Your task to perform on an android device: Open Reddit.com Image 0: 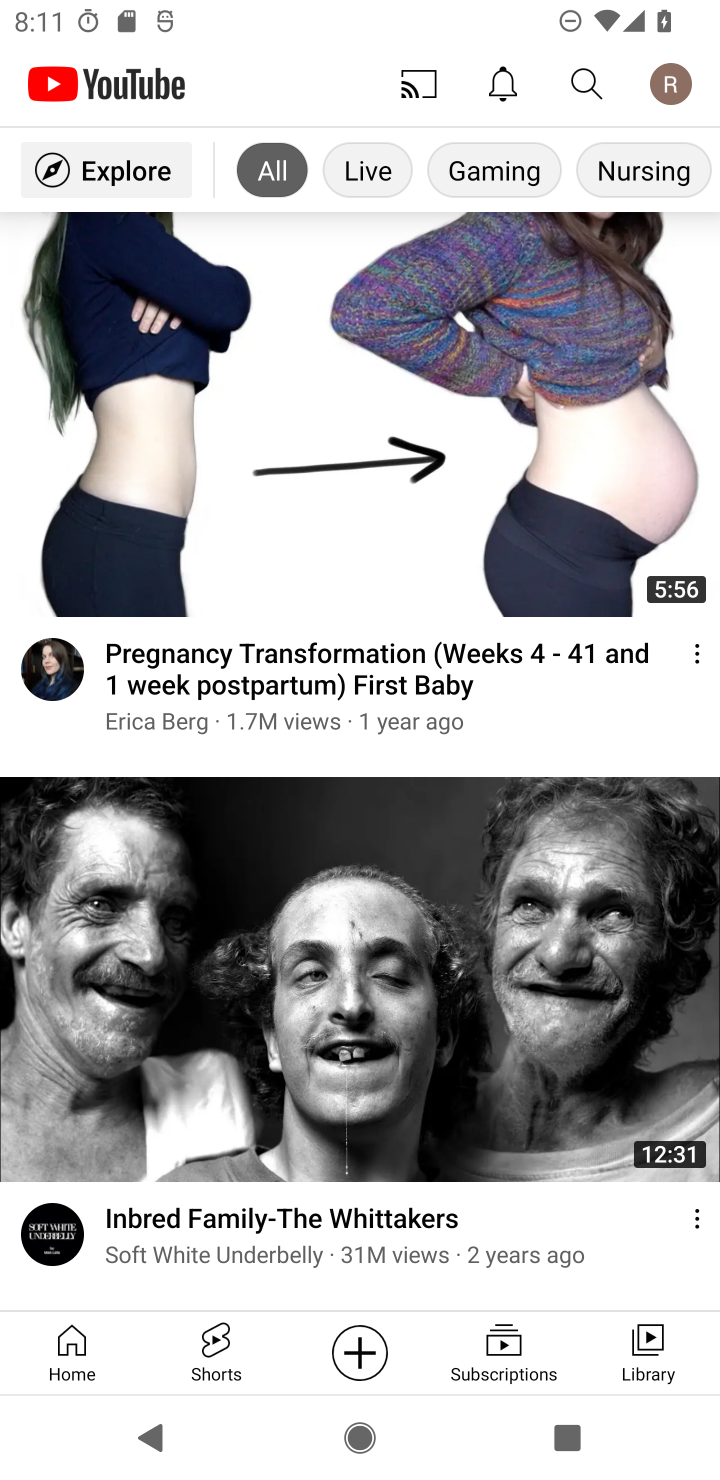
Step 0: press home button
Your task to perform on an android device: Open Reddit.com Image 1: 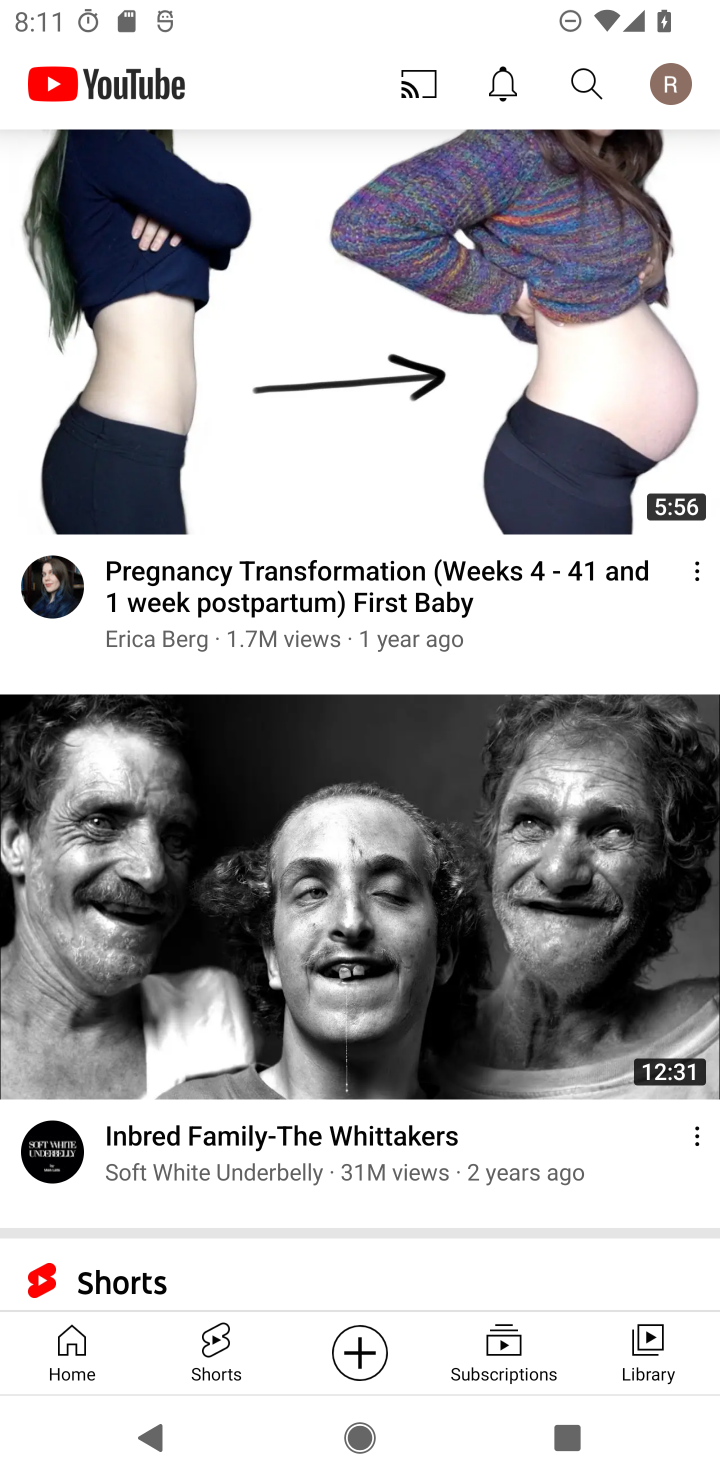
Step 1: press home button
Your task to perform on an android device: Open Reddit.com Image 2: 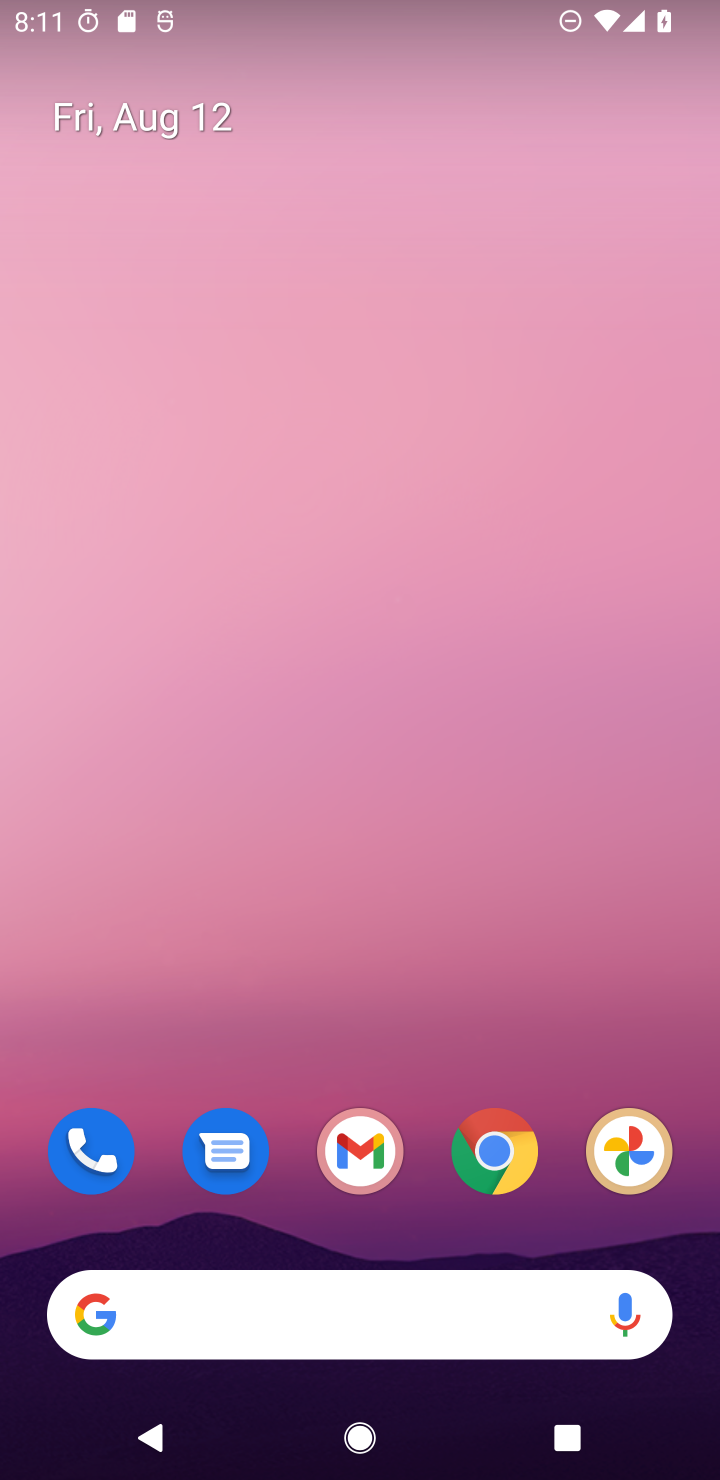
Step 2: drag from (476, 851) to (351, 21)
Your task to perform on an android device: Open Reddit.com Image 3: 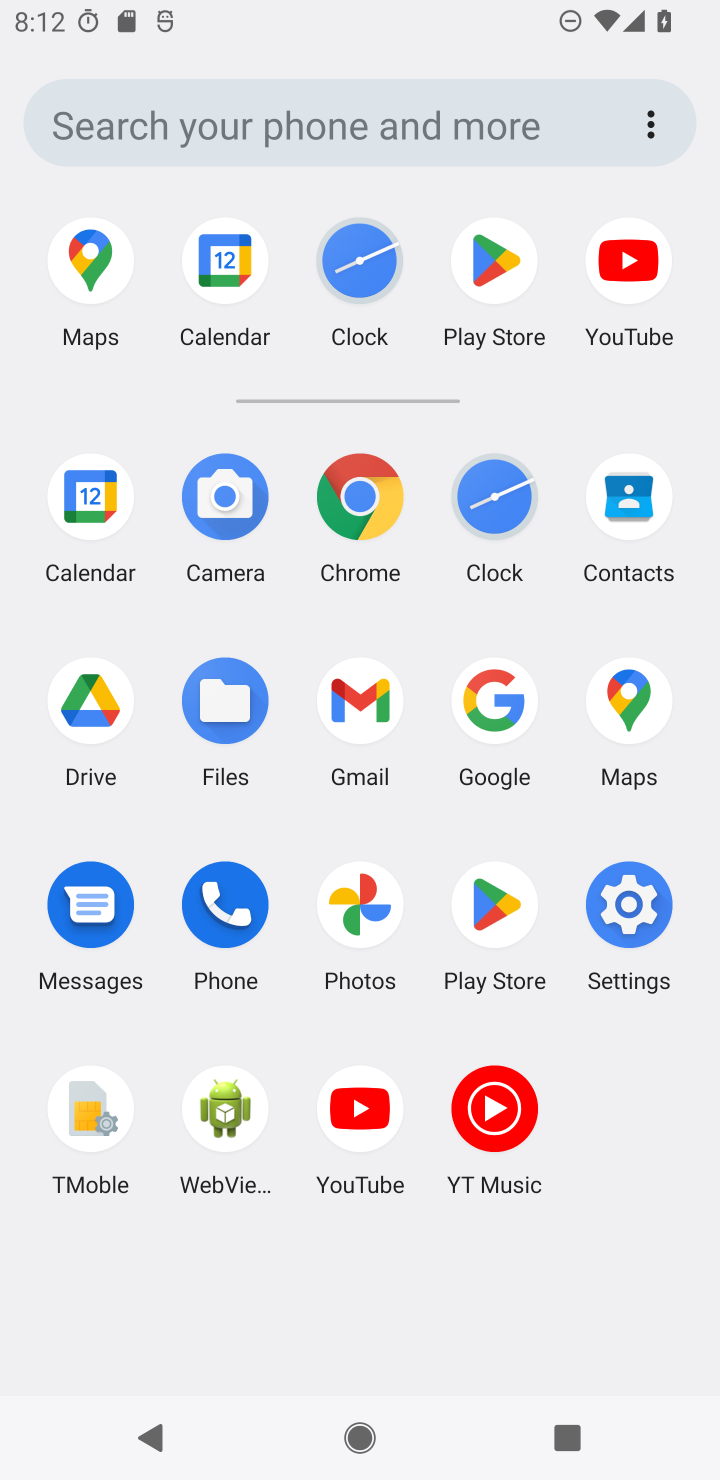
Step 3: click (355, 505)
Your task to perform on an android device: Open Reddit.com Image 4: 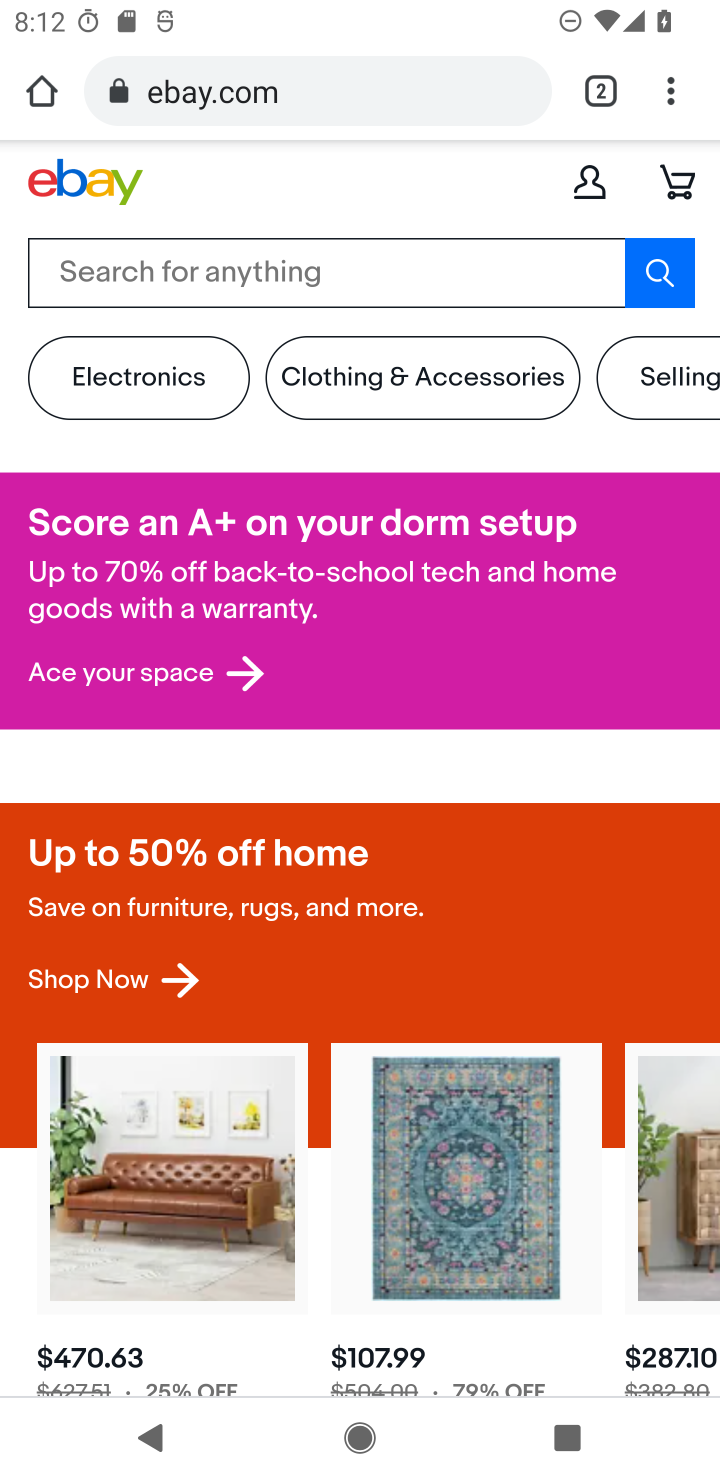
Step 4: drag from (685, 89) to (204, 90)
Your task to perform on an android device: Open Reddit.com Image 5: 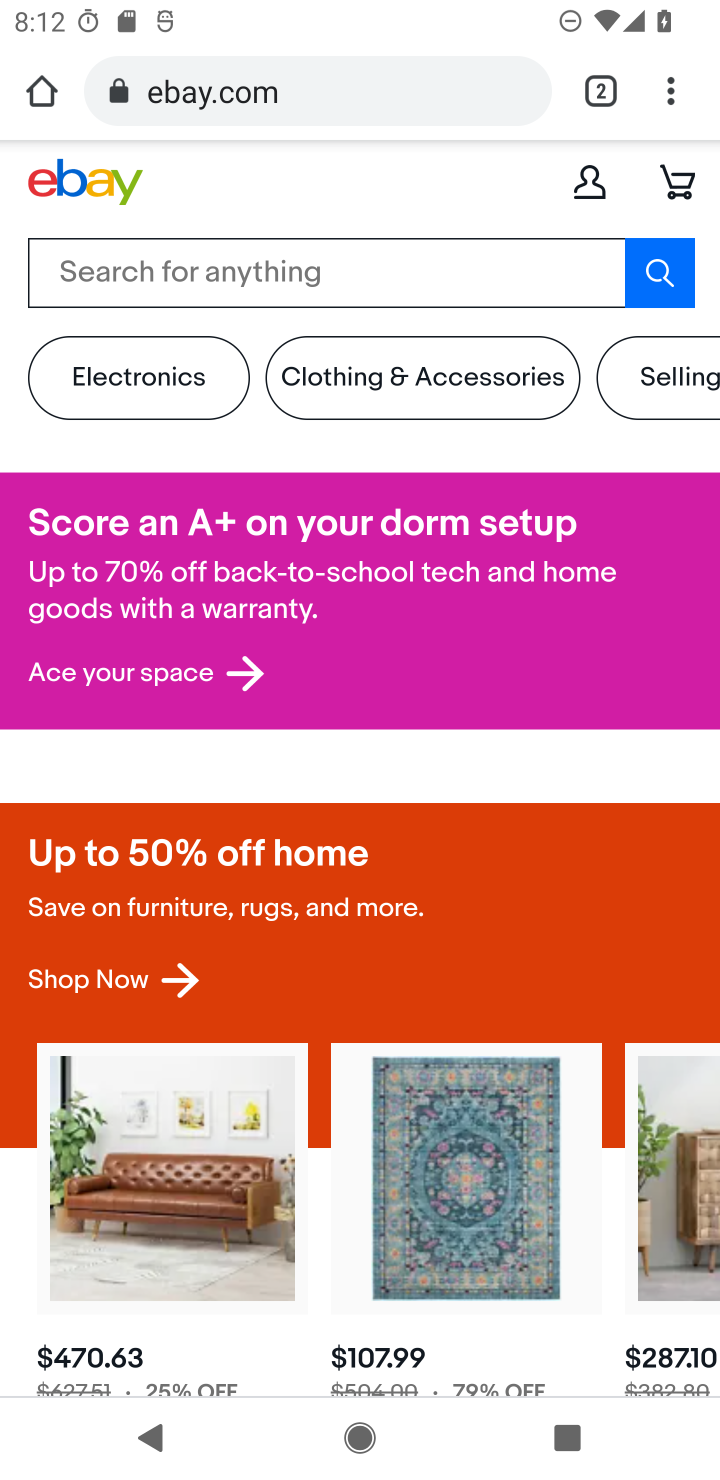
Step 5: click (427, 95)
Your task to perform on an android device: Open Reddit.com Image 6: 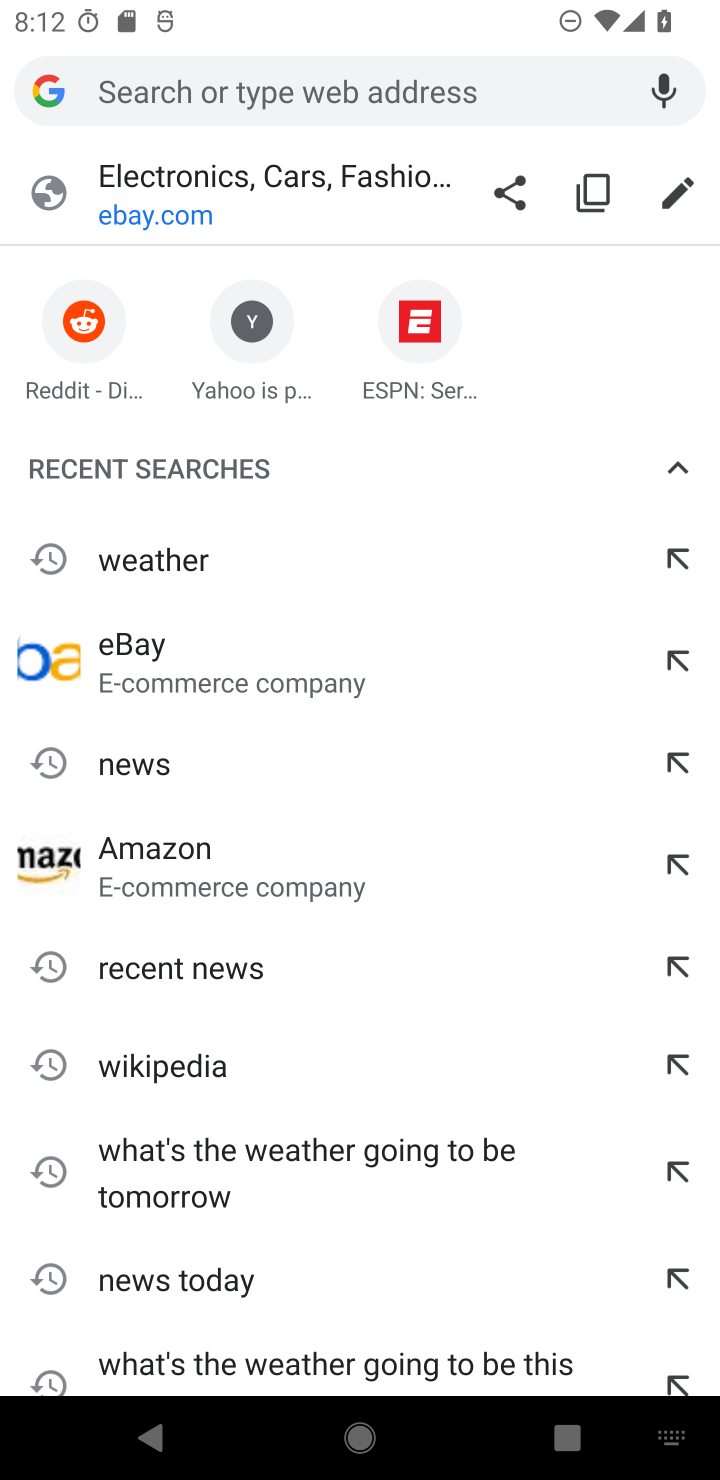
Step 6: type "reddit.com"
Your task to perform on an android device: Open Reddit.com Image 7: 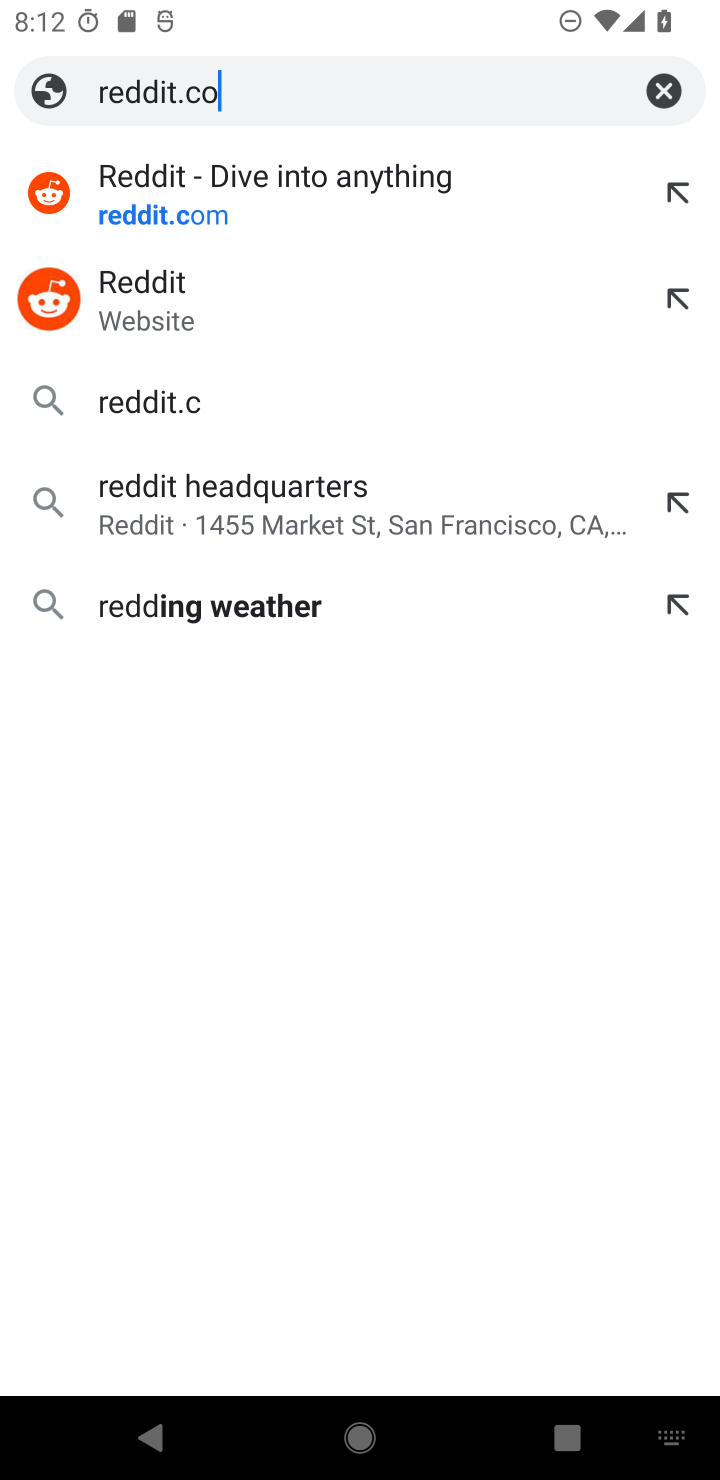
Step 7: type ""
Your task to perform on an android device: Open Reddit.com Image 8: 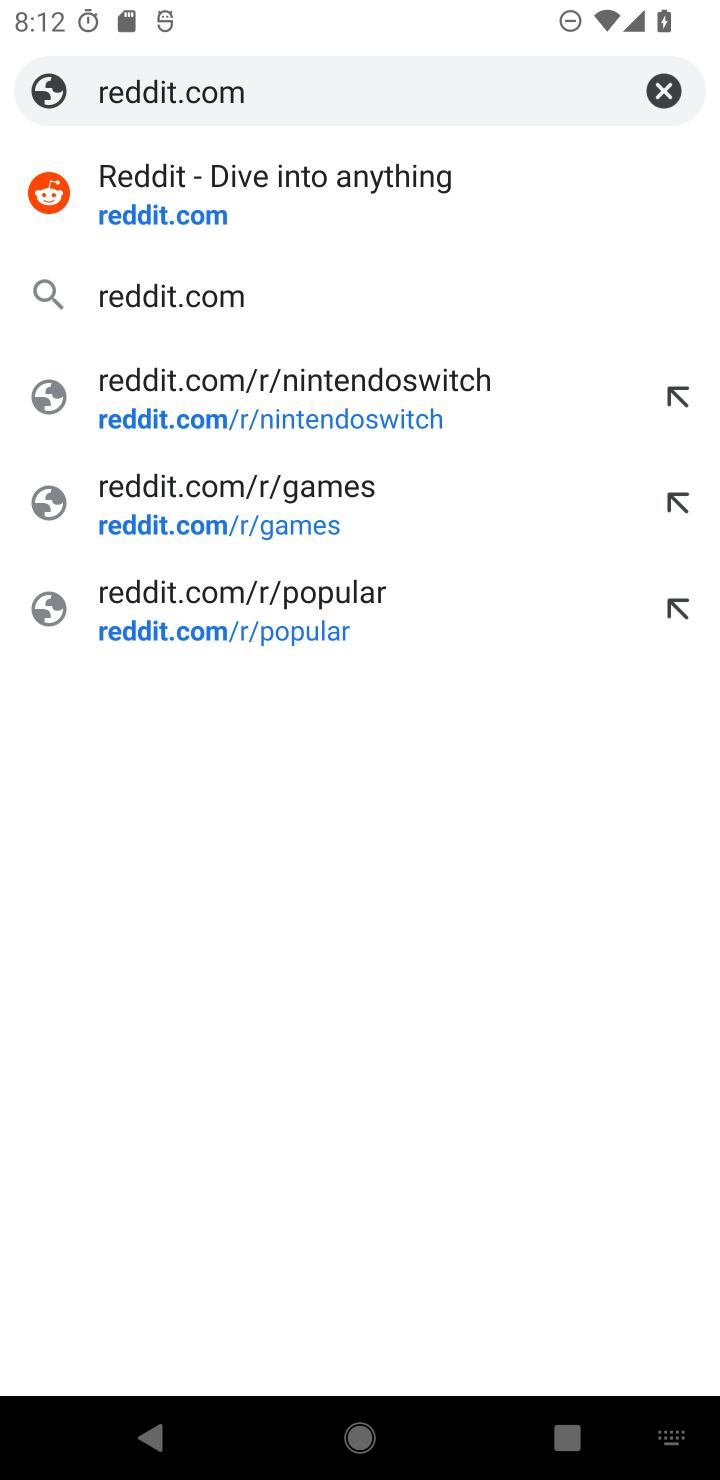
Step 8: click (129, 205)
Your task to perform on an android device: Open Reddit.com Image 9: 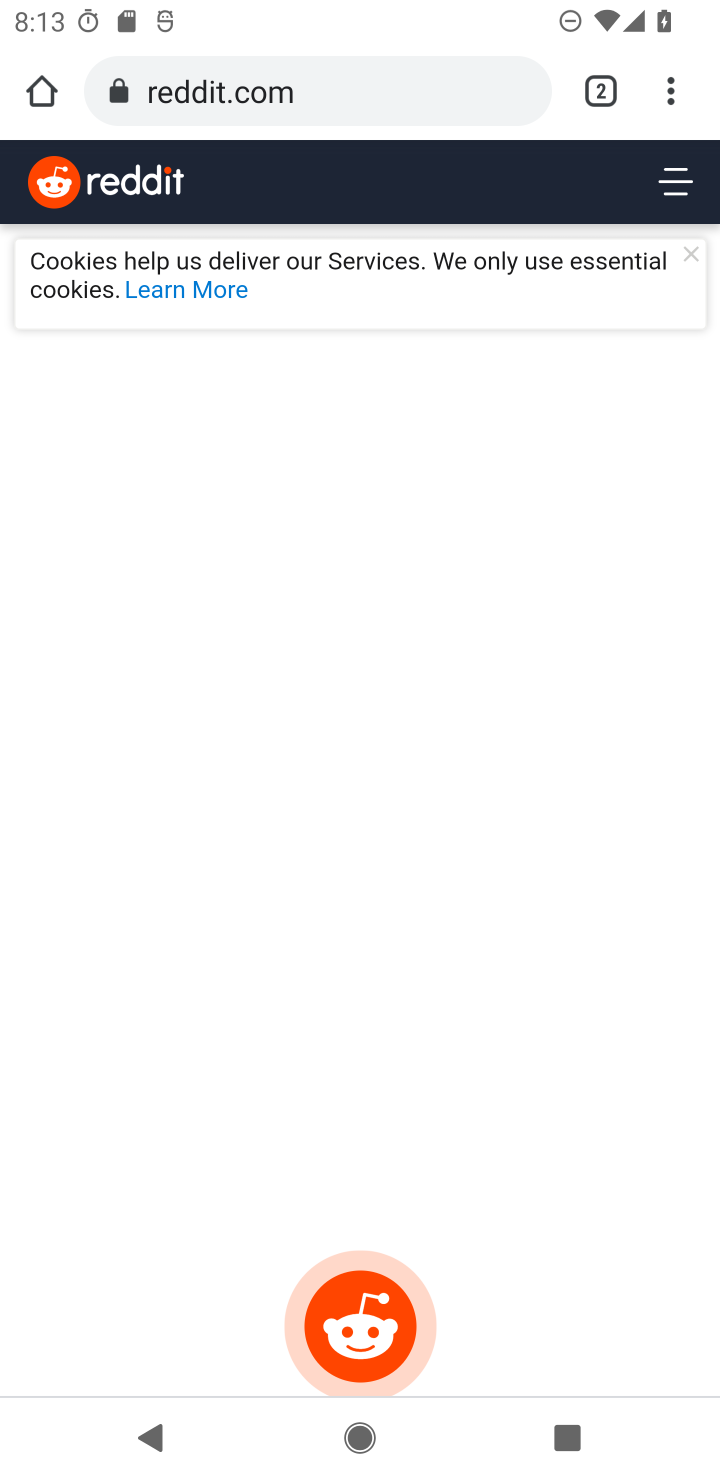
Step 9: task complete